Your task to perform on an android device: Open the web browser Image 0: 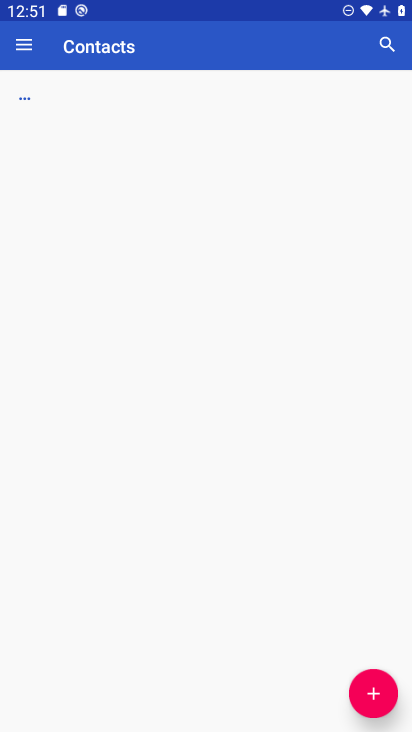
Step 0: drag from (234, 626) to (189, 260)
Your task to perform on an android device: Open the web browser Image 1: 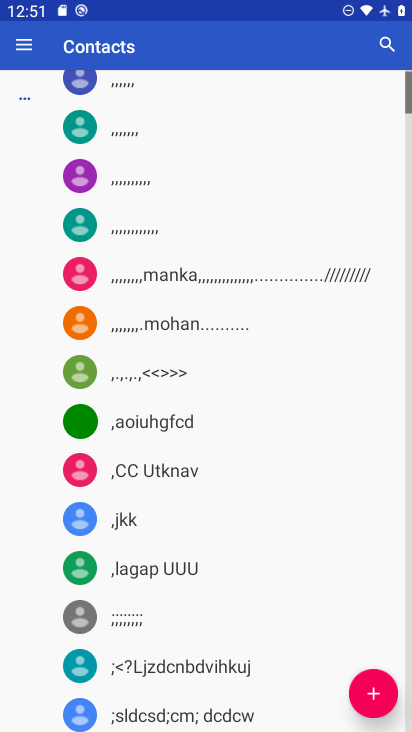
Step 1: press back button
Your task to perform on an android device: Open the web browser Image 2: 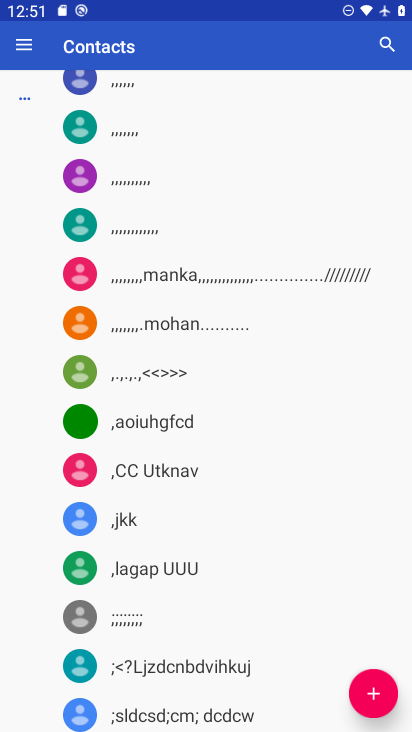
Step 2: press back button
Your task to perform on an android device: Open the web browser Image 3: 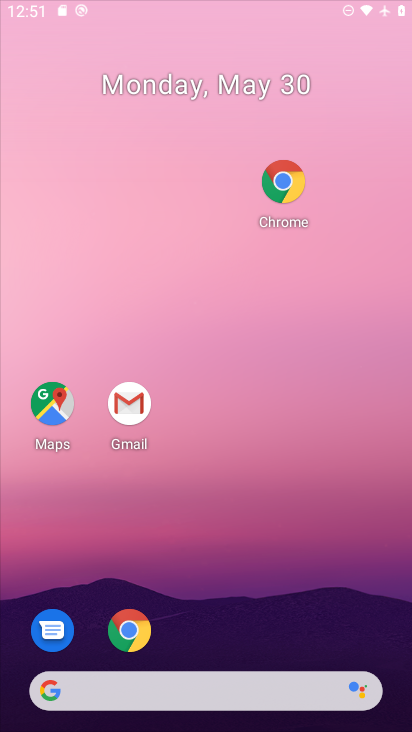
Step 3: press back button
Your task to perform on an android device: Open the web browser Image 4: 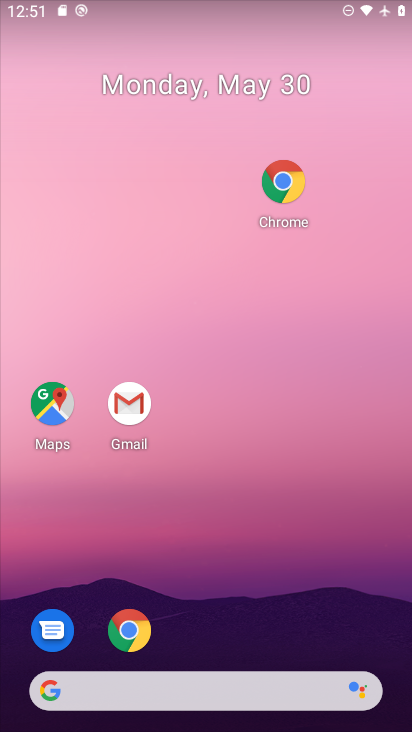
Step 4: drag from (193, 509) to (187, 136)
Your task to perform on an android device: Open the web browser Image 5: 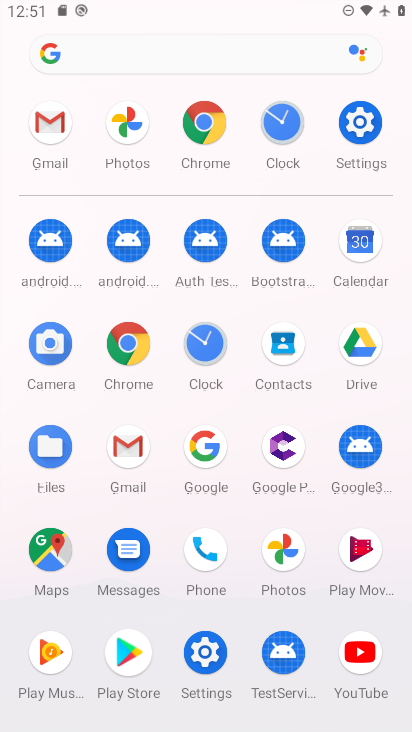
Step 5: click (200, 123)
Your task to perform on an android device: Open the web browser Image 6: 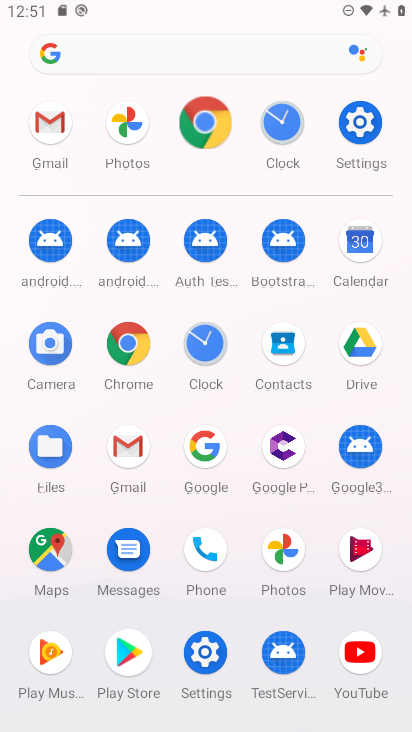
Step 6: click (208, 128)
Your task to perform on an android device: Open the web browser Image 7: 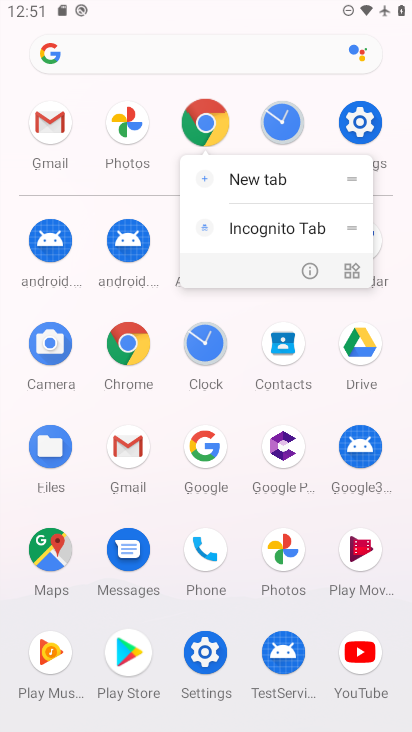
Step 7: click (208, 128)
Your task to perform on an android device: Open the web browser Image 8: 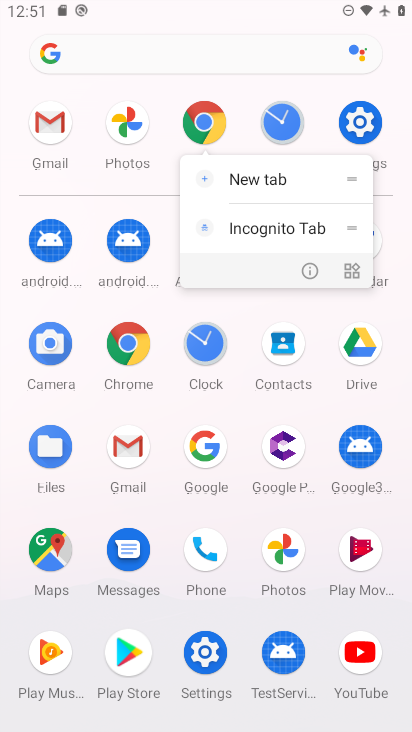
Step 8: click (214, 133)
Your task to perform on an android device: Open the web browser Image 9: 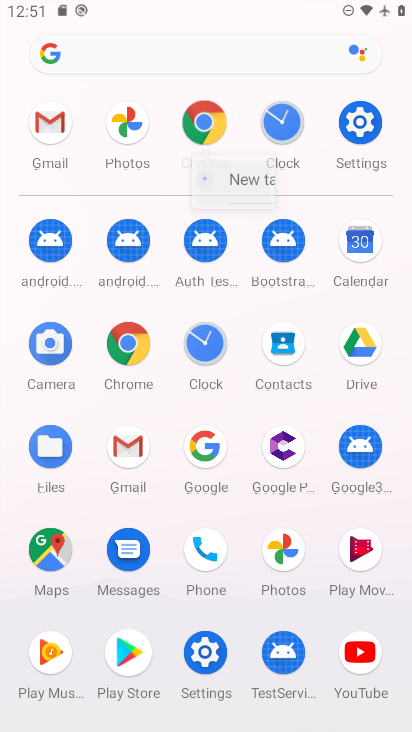
Step 9: click (214, 132)
Your task to perform on an android device: Open the web browser Image 10: 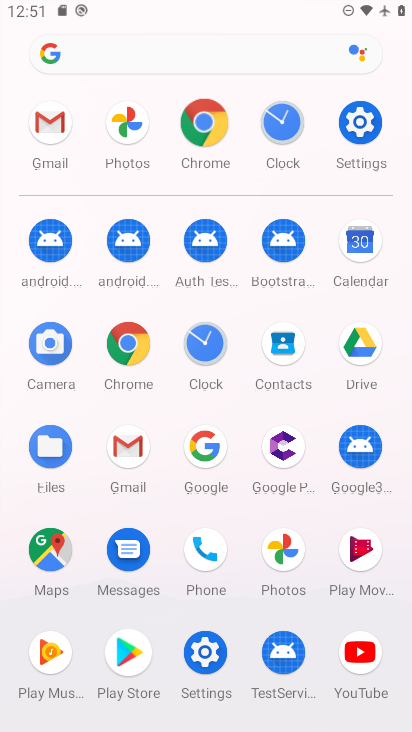
Step 10: click (214, 132)
Your task to perform on an android device: Open the web browser Image 11: 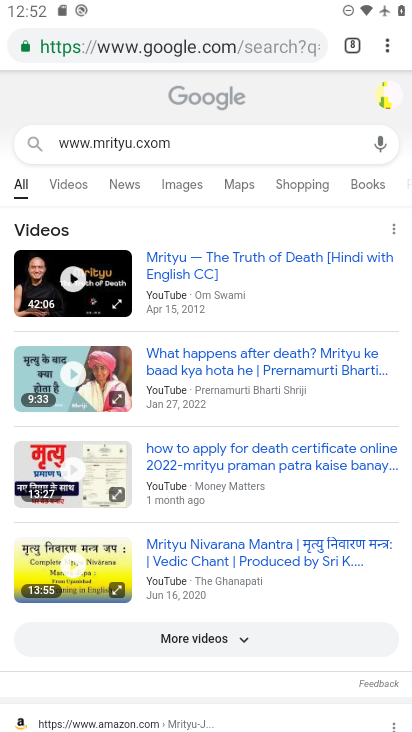
Step 11: click (389, 54)
Your task to perform on an android device: Open the web browser Image 12: 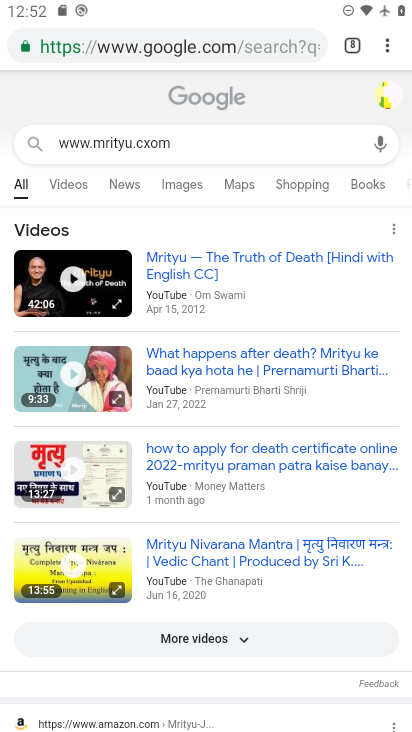
Step 12: drag from (383, 40) to (213, 91)
Your task to perform on an android device: Open the web browser Image 13: 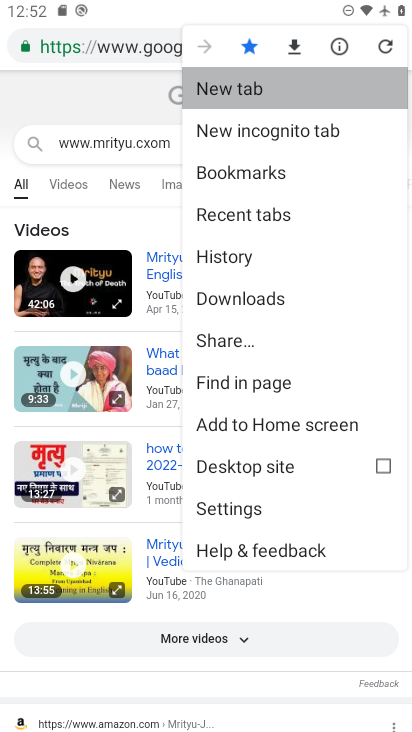
Step 13: click (213, 90)
Your task to perform on an android device: Open the web browser Image 14: 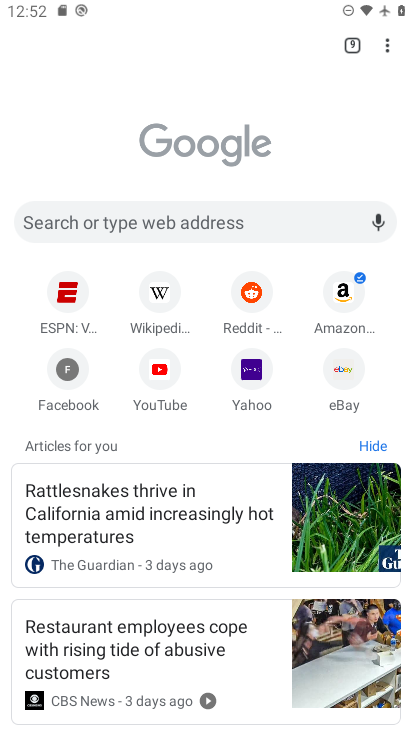
Step 14: task complete